Your task to perform on an android device: Go to Yahoo.com Image 0: 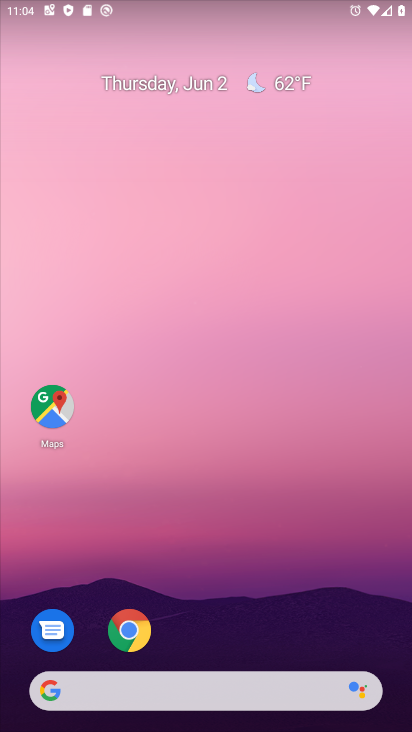
Step 0: press home button
Your task to perform on an android device: Go to Yahoo.com Image 1: 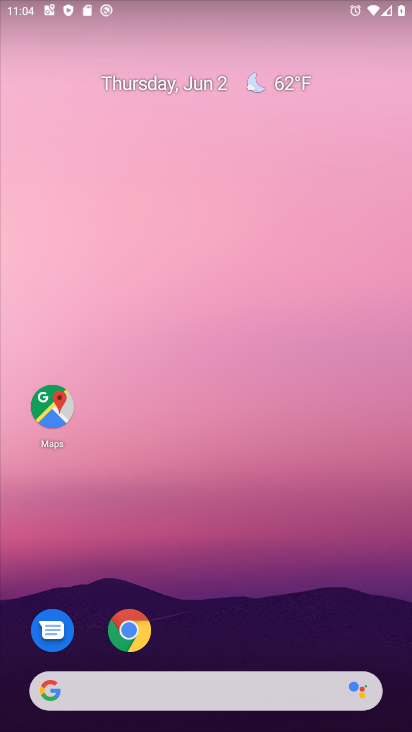
Step 1: click (128, 626)
Your task to perform on an android device: Go to Yahoo.com Image 2: 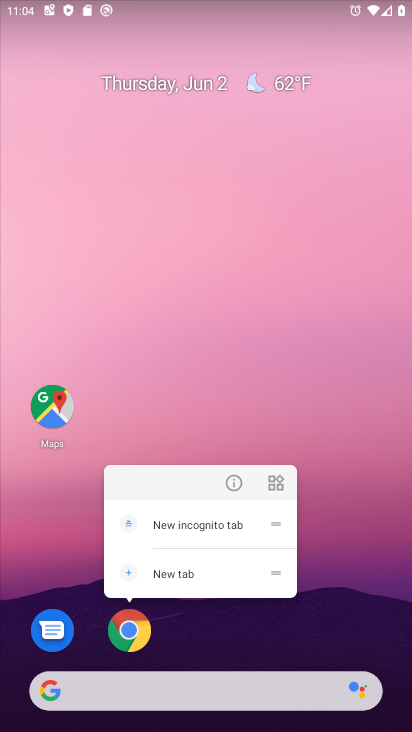
Step 2: click (143, 629)
Your task to perform on an android device: Go to Yahoo.com Image 3: 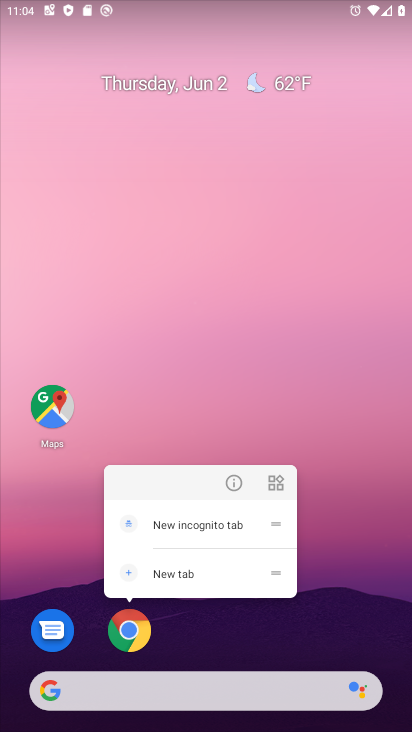
Step 3: click (136, 638)
Your task to perform on an android device: Go to Yahoo.com Image 4: 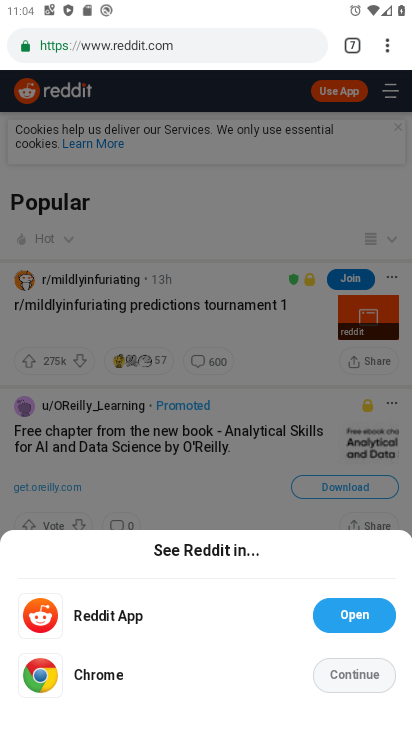
Step 4: drag from (384, 45) to (270, 92)
Your task to perform on an android device: Go to Yahoo.com Image 5: 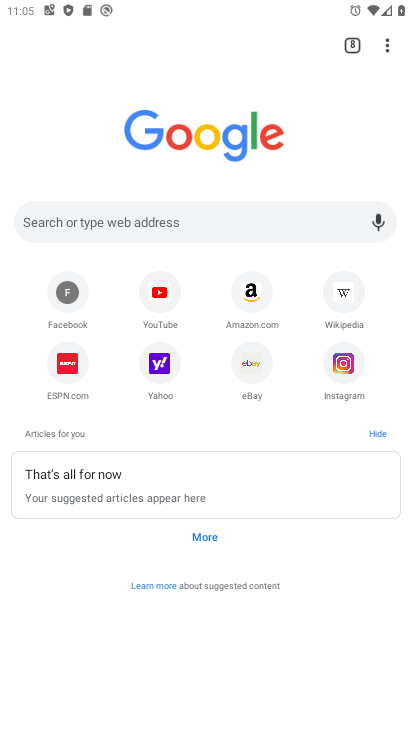
Step 5: click (149, 361)
Your task to perform on an android device: Go to Yahoo.com Image 6: 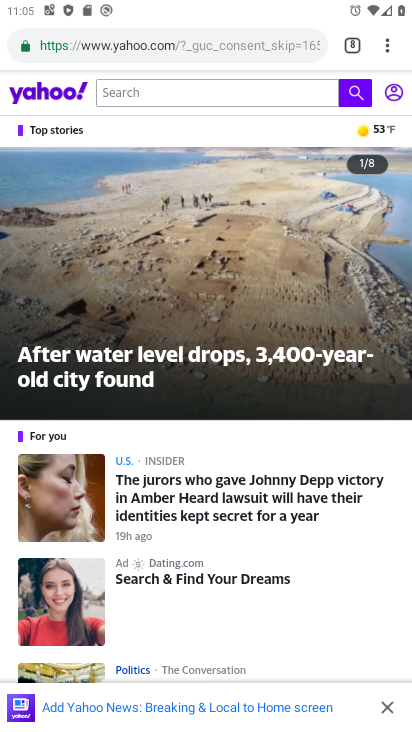
Step 6: task complete